Your task to perform on an android device: change the clock display to digital Image 0: 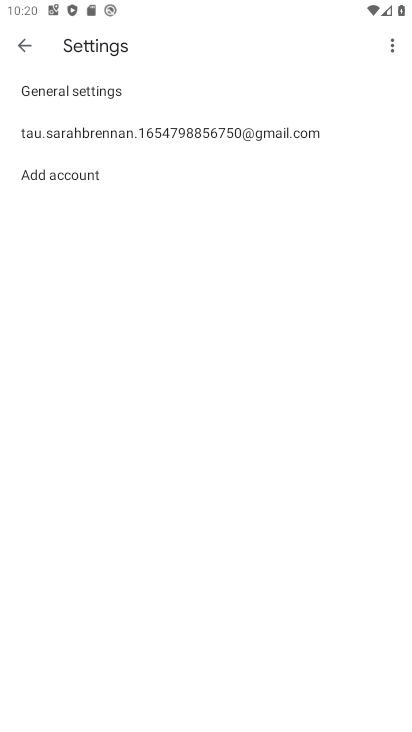
Step 0: press home button
Your task to perform on an android device: change the clock display to digital Image 1: 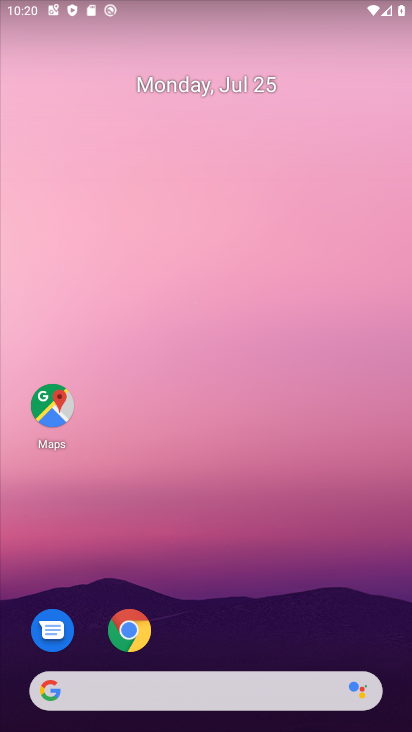
Step 1: drag from (334, 607) to (195, 53)
Your task to perform on an android device: change the clock display to digital Image 2: 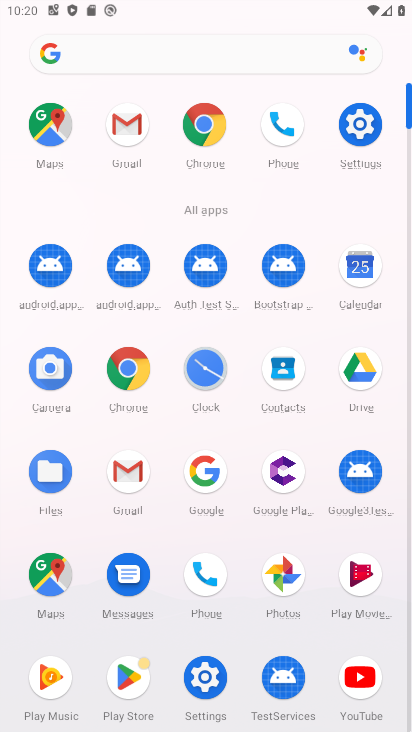
Step 2: click (210, 369)
Your task to perform on an android device: change the clock display to digital Image 3: 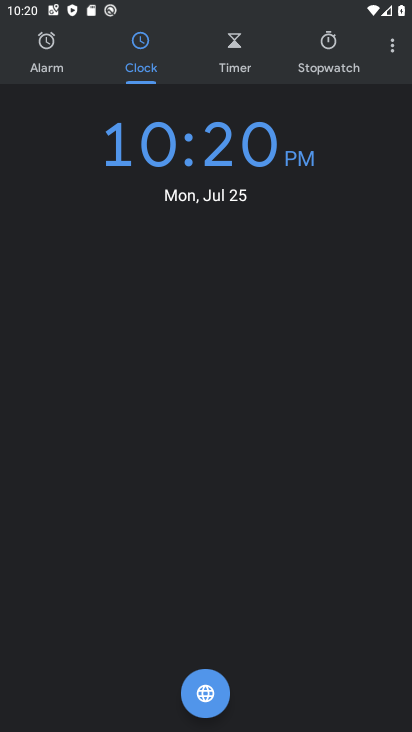
Step 3: click (394, 34)
Your task to perform on an android device: change the clock display to digital Image 4: 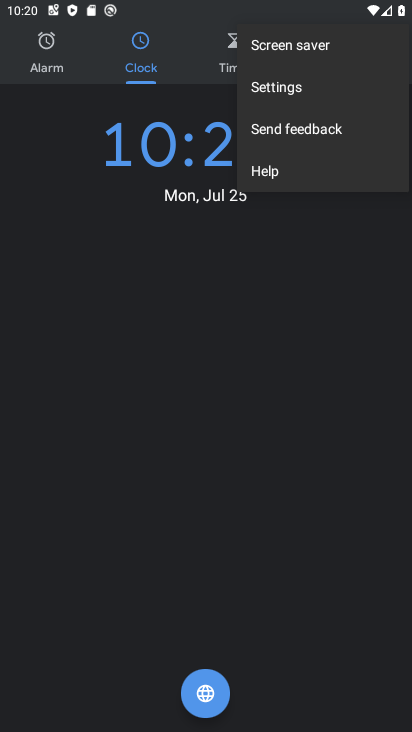
Step 4: click (310, 87)
Your task to perform on an android device: change the clock display to digital Image 5: 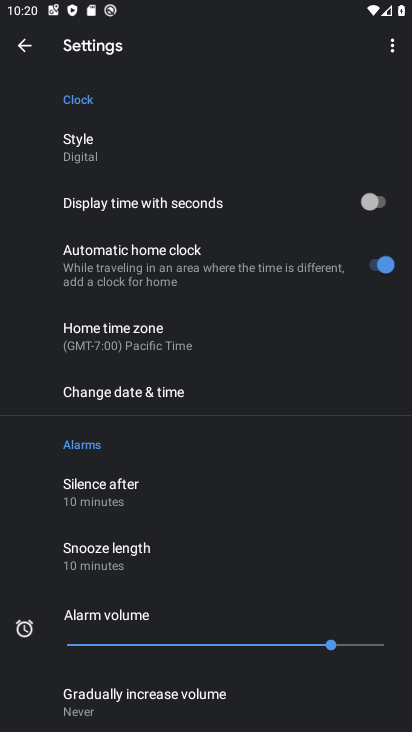
Step 5: task complete